Your task to perform on an android device: Open my contact list Image 0: 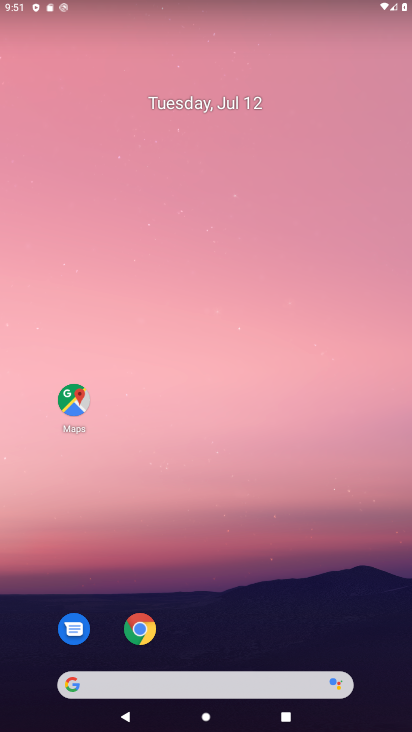
Step 0: drag from (193, 680) to (238, 149)
Your task to perform on an android device: Open my contact list Image 1: 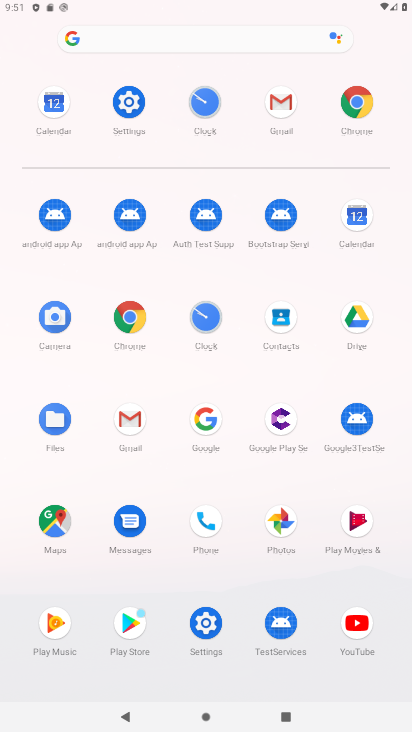
Step 1: click (274, 325)
Your task to perform on an android device: Open my contact list Image 2: 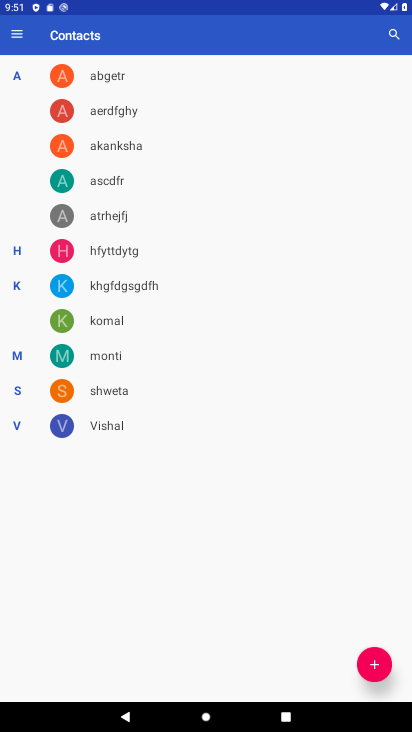
Step 2: click (380, 671)
Your task to perform on an android device: Open my contact list Image 3: 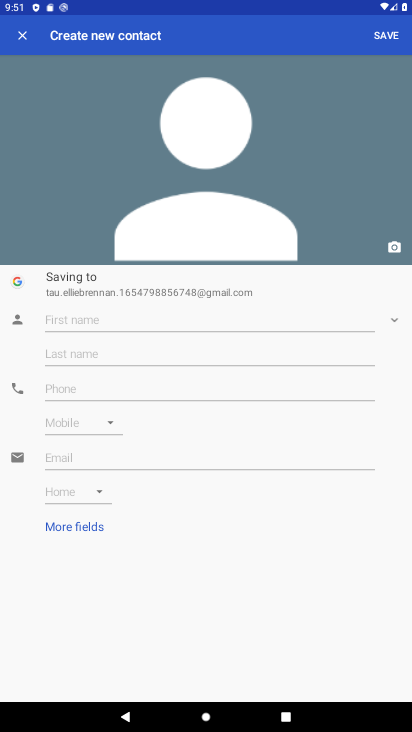
Step 3: click (135, 323)
Your task to perform on an android device: Open my contact list Image 4: 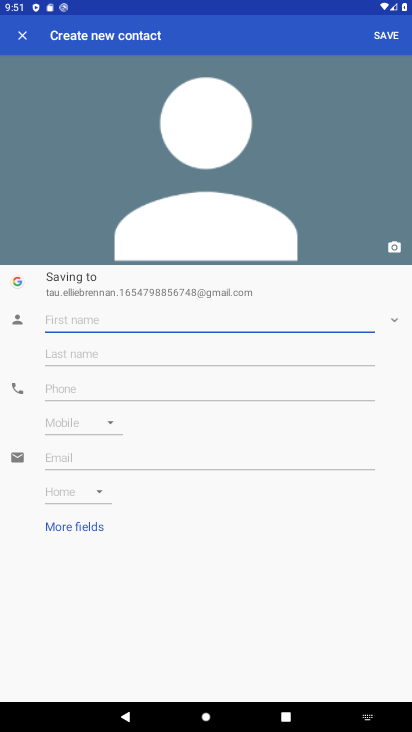
Step 4: type "sonu"
Your task to perform on an android device: Open my contact list Image 5: 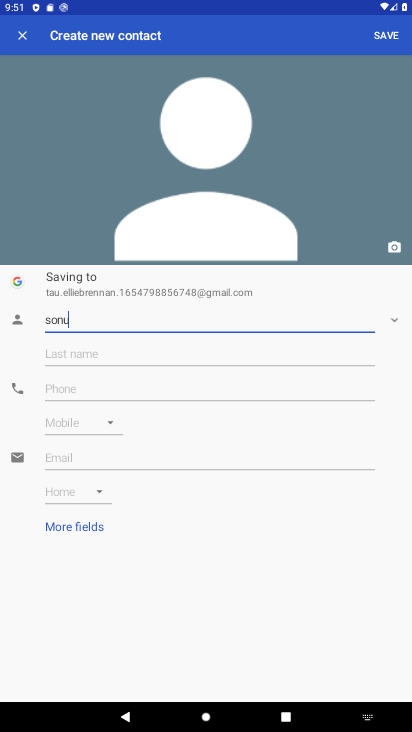
Step 5: click (113, 386)
Your task to perform on an android device: Open my contact list Image 6: 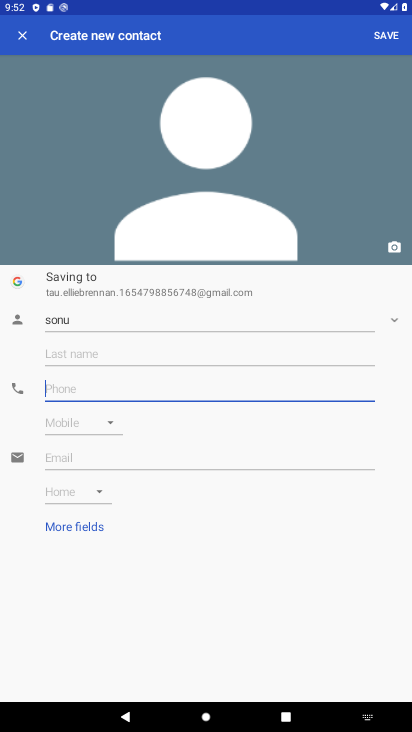
Step 6: type "9678564567"
Your task to perform on an android device: Open my contact list Image 7: 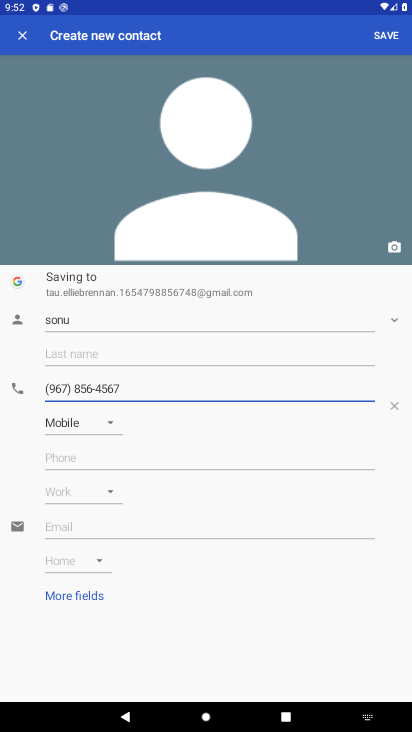
Step 7: click (383, 34)
Your task to perform on an android device: Open my contact list Image 8: 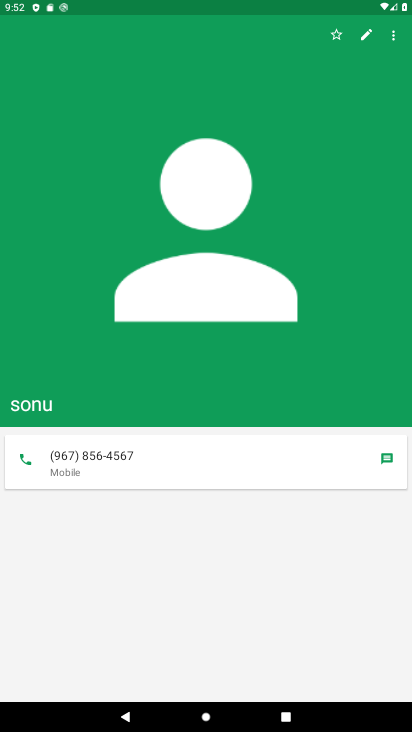
Step 8: task complete